Your task to perform on an android device: Go to sound settings Image 0: 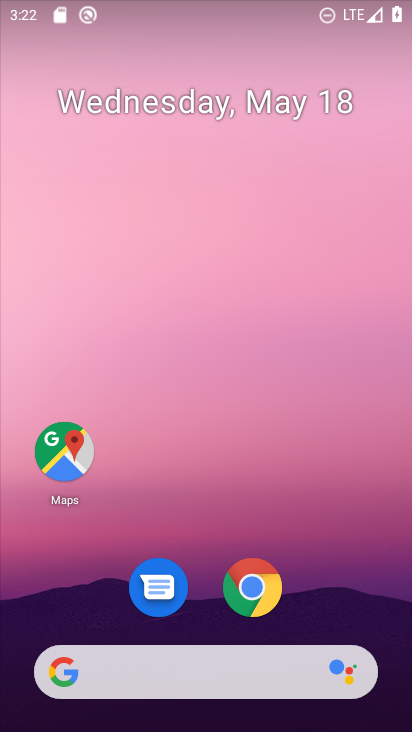
Step 0: drag from (217, 653) to (210, 37)
Your task to perform on an android device: Go to sound settings Image 1: 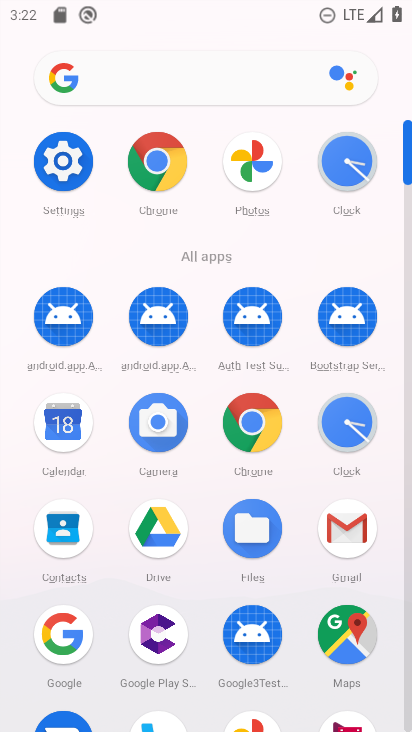
Step 1: click (47, 168)
Your task to perform on an android device: Go to sound settings Image 2: 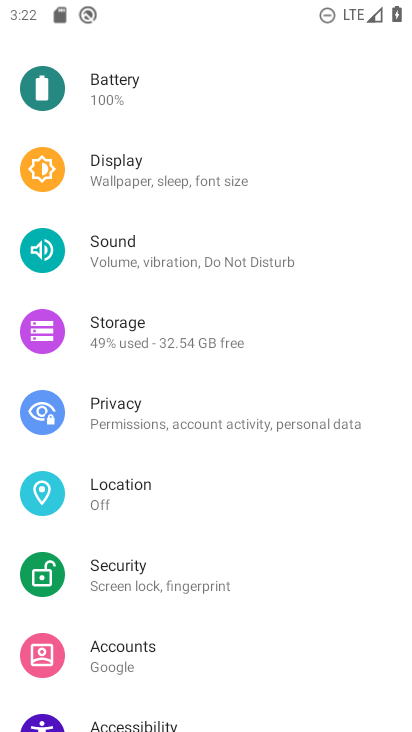
Step 2: click (98, 241)
Your task to perform on an android device: Go to sound settings Image 3: 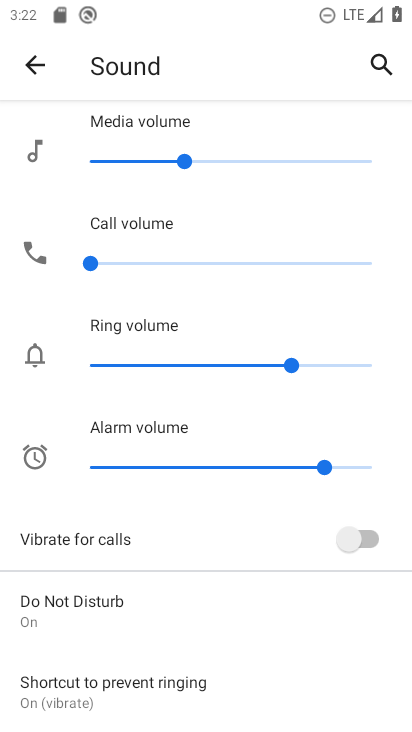
Step 3: task complete